Your task to perform on an android device: Open Wikipedia Image 0: 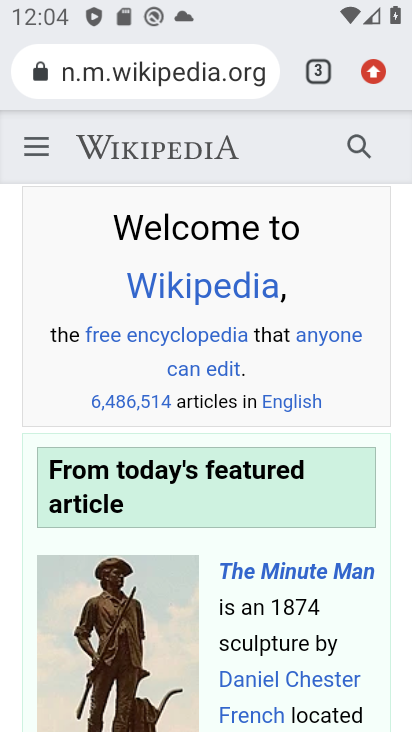
Step 0: task complete